Your task to perform on an android device: turn on data saver in the chrome app Image 0: 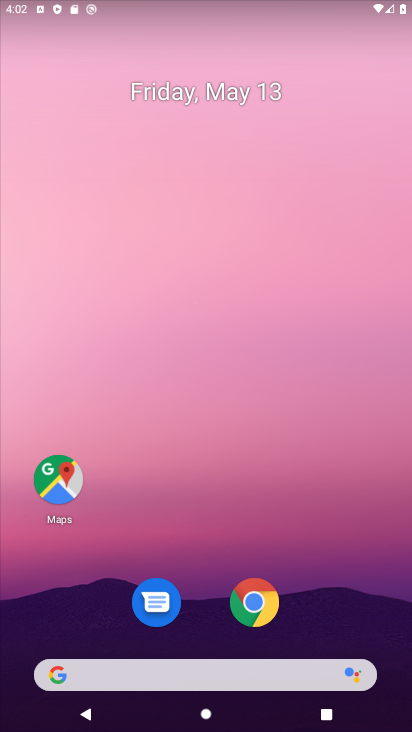
Step 0: drag from (214, 661) to (262, 317)
Your task to perform on an android device: turn on data saver in the chrome app Image 1: 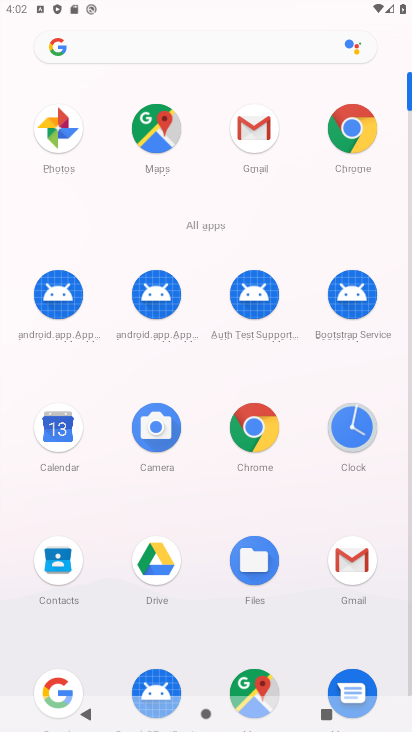
Step 1: click (349, 134)
Your task to perform on an android device: turn on data saver in the chrome app Image 2: 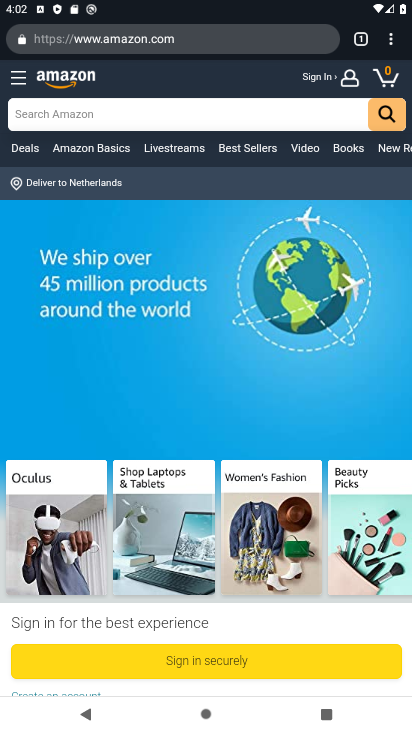
Step 2: click (394, 43)
Your task to perform on an android device: turn on data saver in the chrome app Image 3: 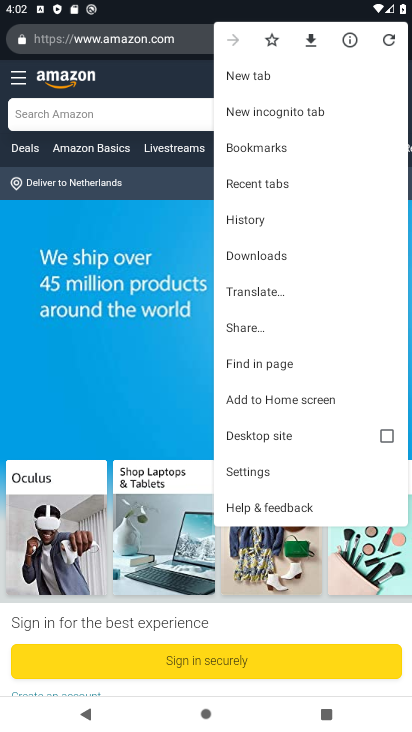
Step 3: click (253, 467)
Your task to perform on an android device: turn on data saver in the chrome app Image 4: 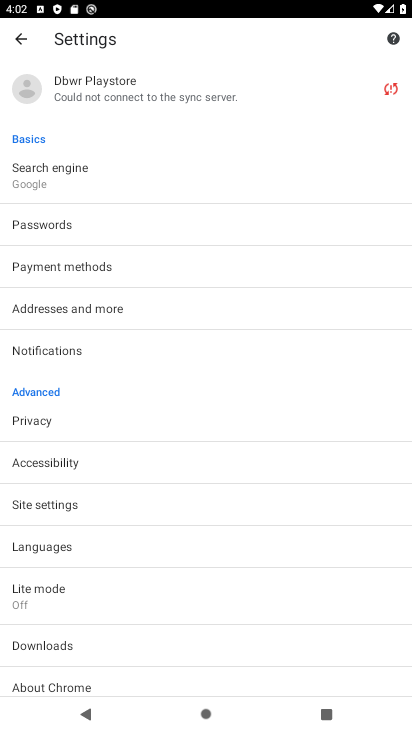
Step 4: click (43, 595)
Your task to perform on an android device: turn on data saver in the chrome app Image 5: 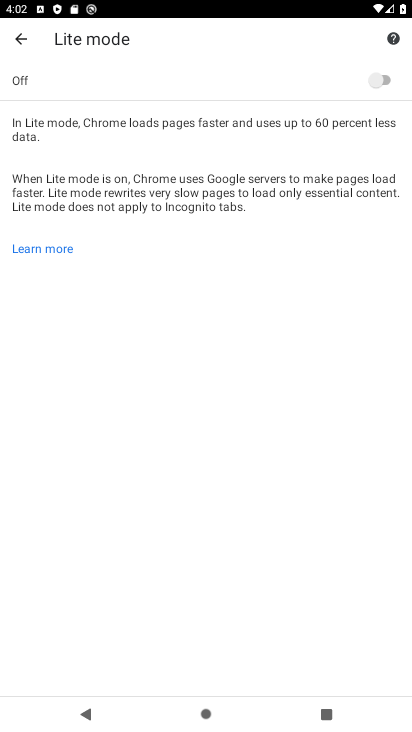
Step 5: click (391, 82)
Your task to perform on an android device: turn on data saver in the chrome app Image 6: 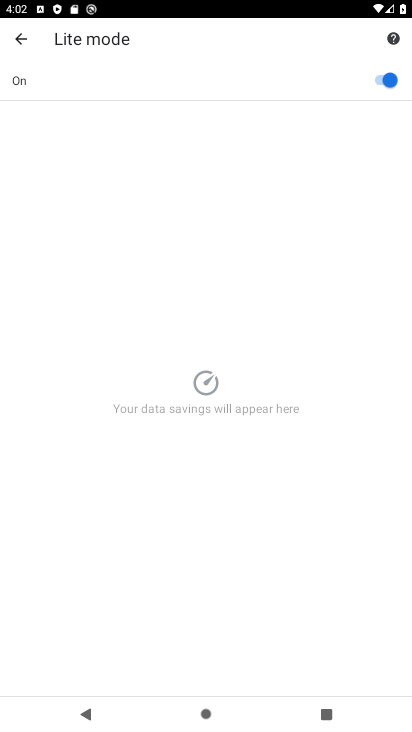
Step 6: task complete